Your task to perform on an android device: delete browsing data in the chrome app Image 0: 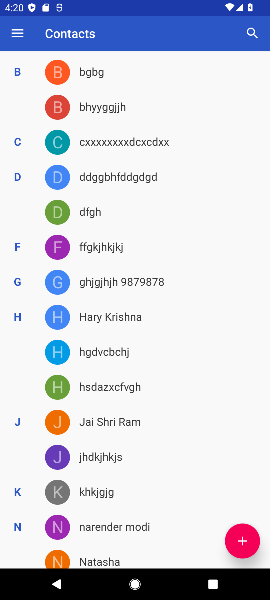
Step 0: press home button
Your task to perform on an android device: delete browsing data in the chrome app Image 1: 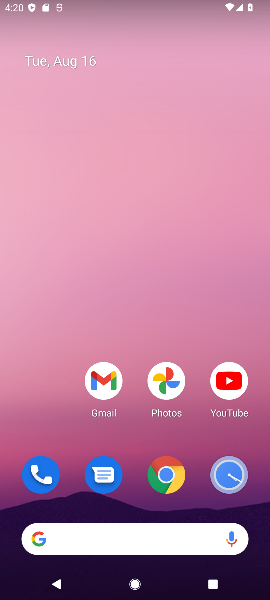
Step 1: drag from (256, 523) to (111, 37)
Your task to perform on an android device: delete browsing data in the chrome app Image 2: 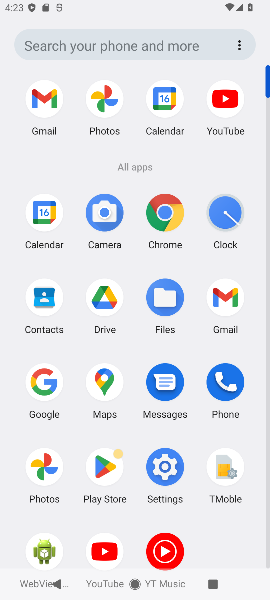
Step 2: click (178, 218)
Your task to perform on an android device: delete browsing data in the chrome app Image 3: 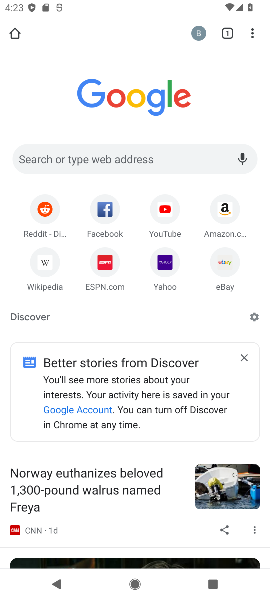
Step 3: click (254, 31)
Your task to perform on an android device: delete browsing data in the chrome app Image 4: 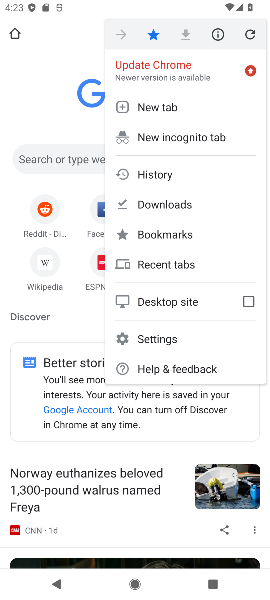
Step 4: click (154, 185)
Your task to perform on an android device: delete browsing data in the chrome app Image 5: 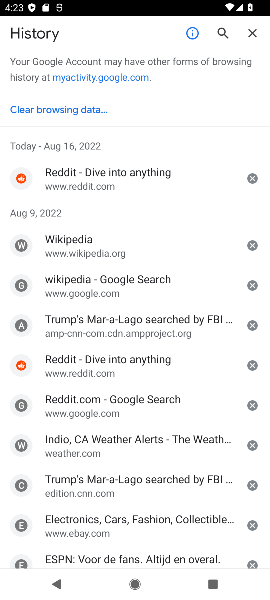
Step 5: click (55, 113)
Your task to perform on an android device: delete browsing data in the chrome app Image 6: 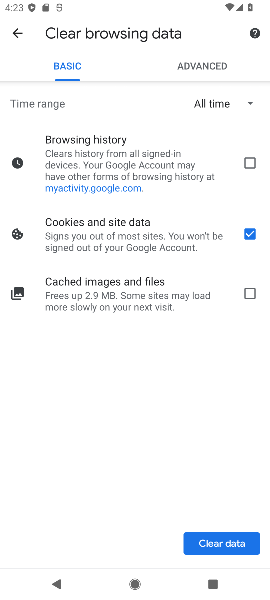
Step 6: click (232, 171)
Your task to perform on an android device: delete browsing data in the chrome app Image 7: 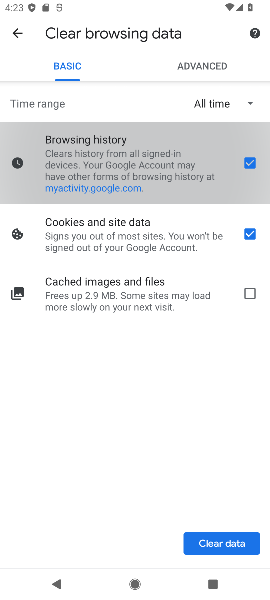
Step 7: click (222, 549)
Your task to perform on an android device: delete browsing data in the chrome app Image 8: 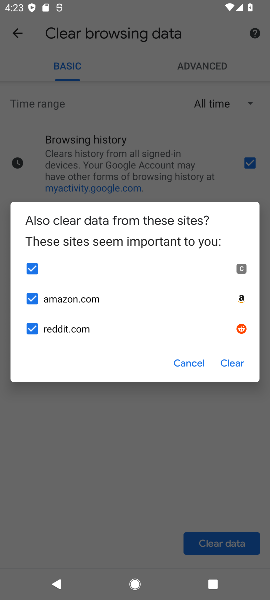
Step 8: click (235, 361)
Your task to perform on an android device: delete browsing data in the chrome app Image 9: 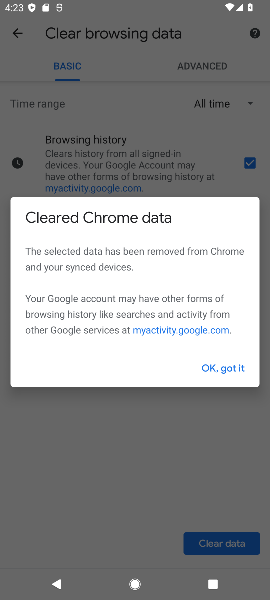
Step 9: click (234, 362)
Your task to perform on an android device: delete browsing data in the chrome app Image 10: 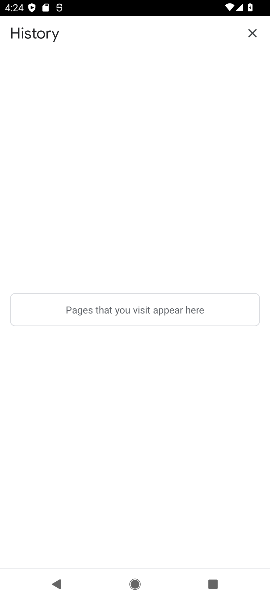
Step 10: task complete